Your task to perform on an android device: toggle javascript in the chrome app Image 0: 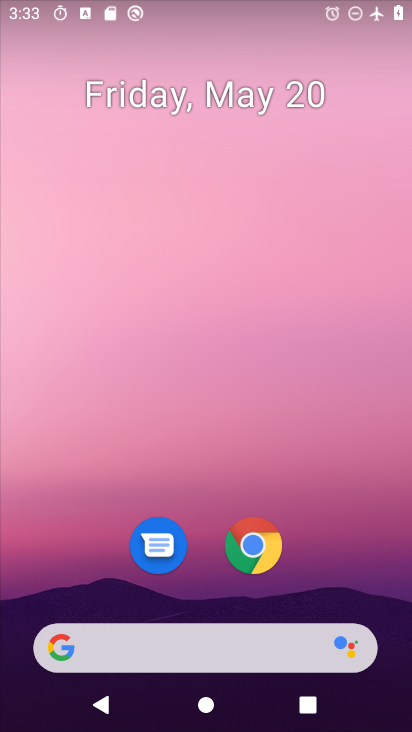
Step 0: click (304, 15)
Your task to perform on an android device: toggle javascript in the chrome app Image 1: 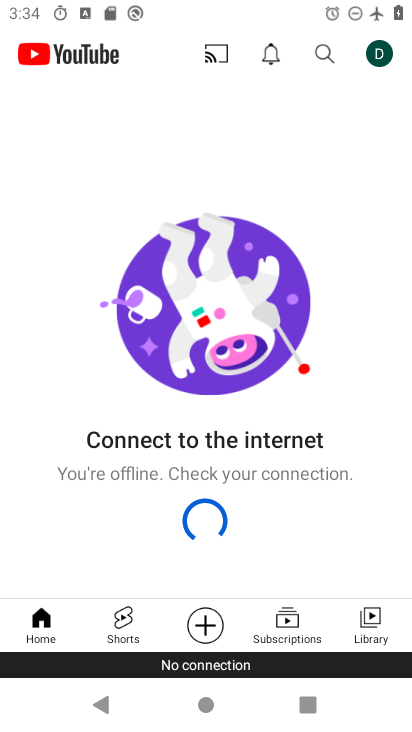
Step 1: press home button
Your task to perform on an android device: toggle javascript in the chrome app Image 2: 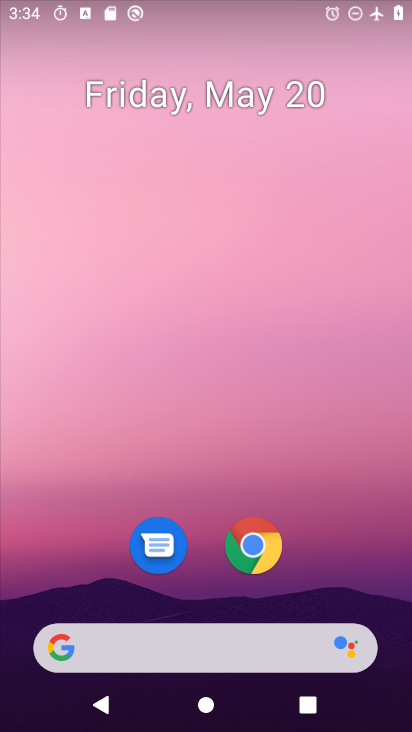
Step 2: drag from (324, 605) to (319, 6)
Your task to perform on an android device: toggle javascript in the chrome app Image 3: 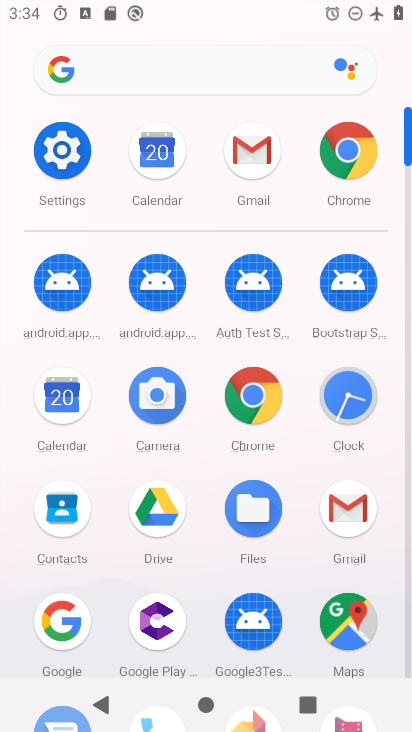
Step 3: click (258, 388)
Your task to perform on an android device: toggle javascript in the chrome app Image 4: 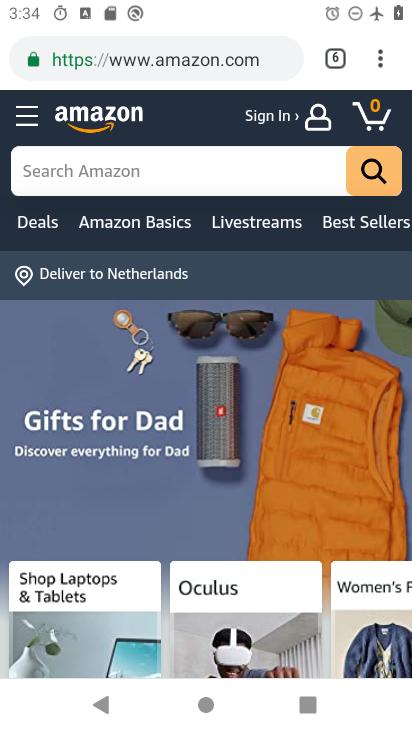
Step 4: drag from (389, 55) to (186, 581)
Your task to perform on an android device: toggle javascript in the chrome app Image 5: 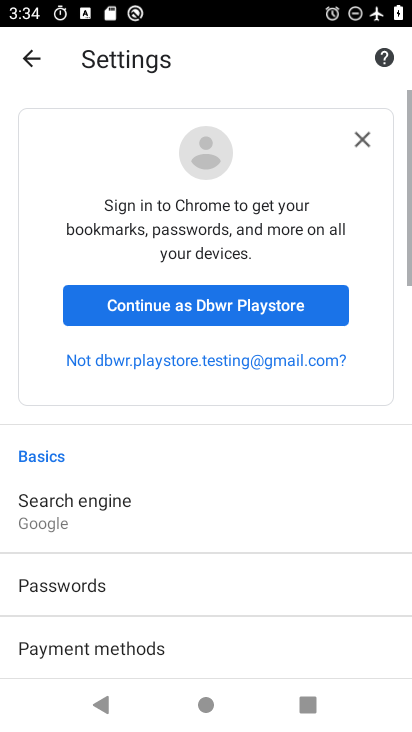
Step 5: drag from (273, 470) to (313, 38)
Your task to perform on an android device: toggle javascript in the chrome app Image 6: 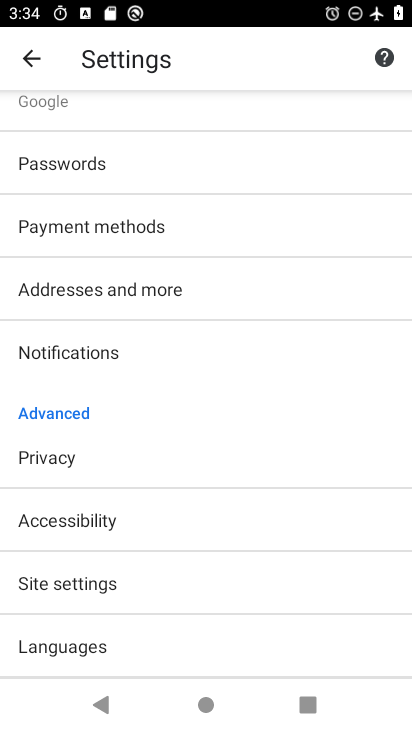
Step 6: click (131, 589)
Your task to perform on an android device: toggle javascript in the chrome app Image 7: 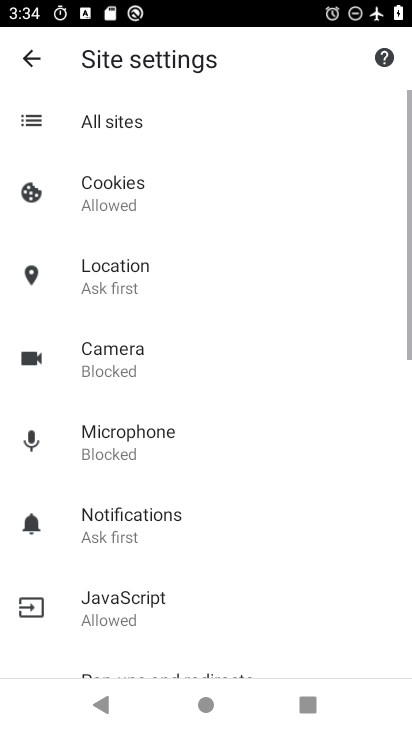
Step 7: drag from (144, 622) to (177, 227)
Your task to perform on an android device: toggle javascript in the chrome app Image 8: 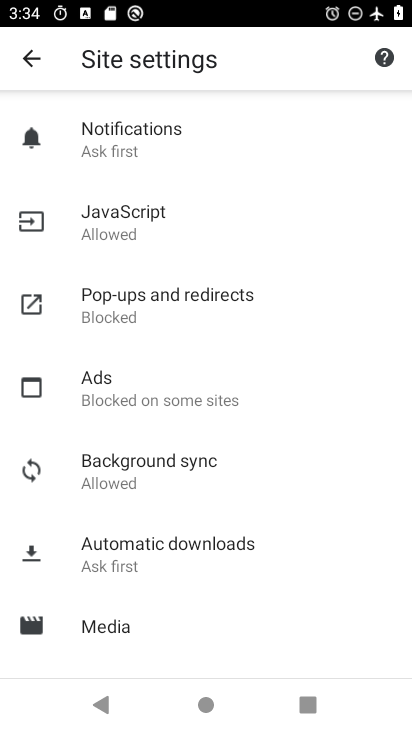
Step 8: click (132, 214)
Your task to perform on an android device: toggle javascript in the chrome app Image 9: 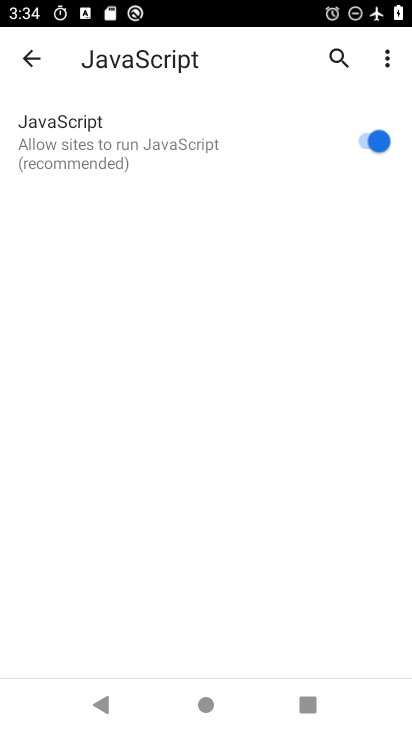
Step 9: click (358, 135)
Your task to perform on an android device: toggle javascript in the chrome app Image 10: 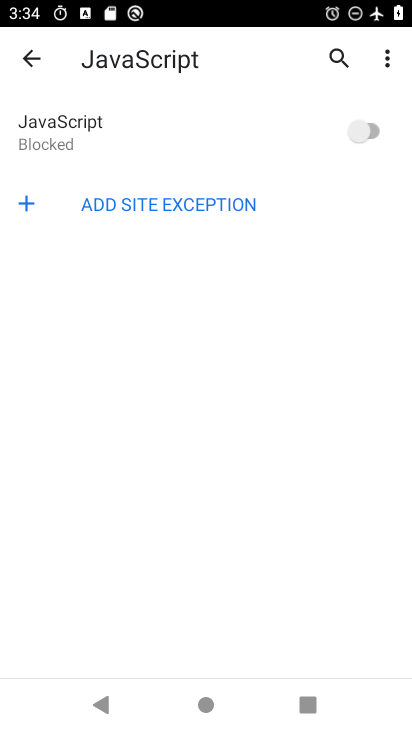
Step 10: task complete